Your task to perform on an android device: change timer sound Image 0: 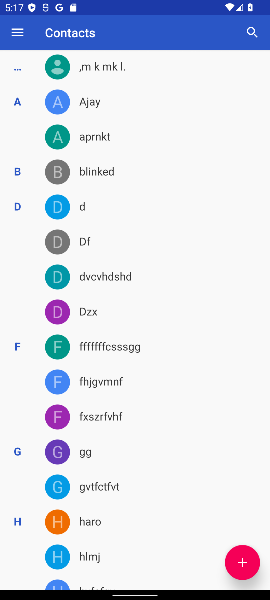
Step 0: press home button
Your task to perform on an android device: change timer sound Image 1: 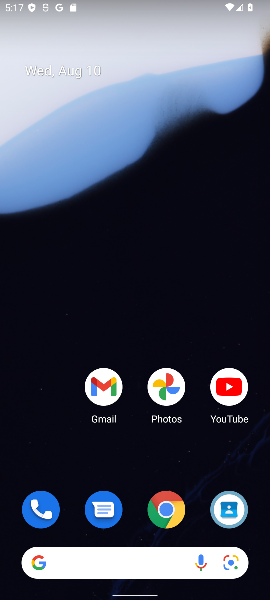
Step 1: drag from (145, 462) to (181, 69)
Your task to perform on an android device: change timer sound Image 2: 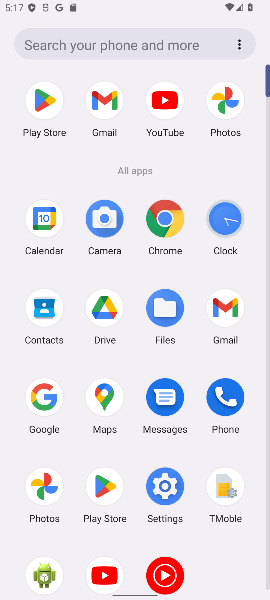
Step 2: click (160, 489)
Your task to perform on an android device: change timer sound Image 3: 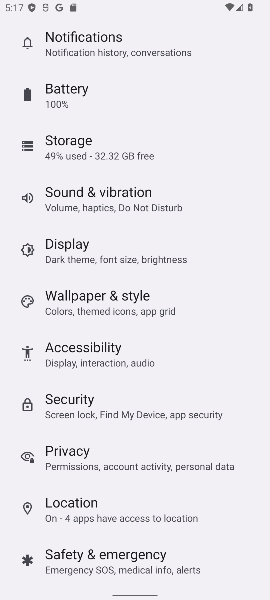
Step 3: press home button
Your task to perform on an android device: change timer sound Image 4: 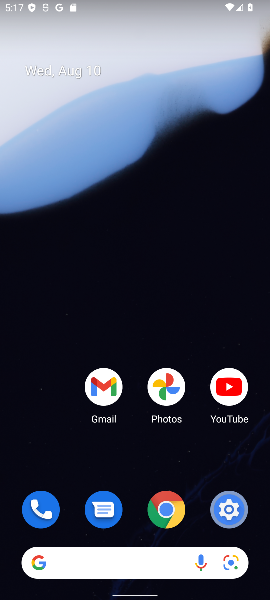
Step 4: drag from (126, 451) to (180, 44)
Your task to perform on an android device: change timer sound Image 5: 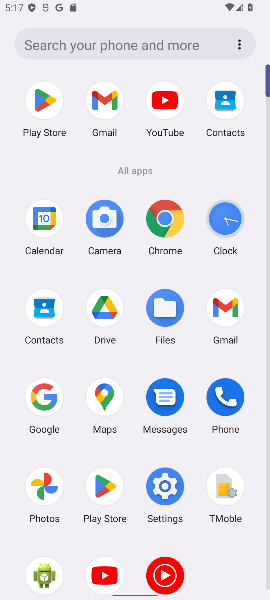
Step 5: click (225, 214)
Your task to perform on an android device: change timer sound Image 6: 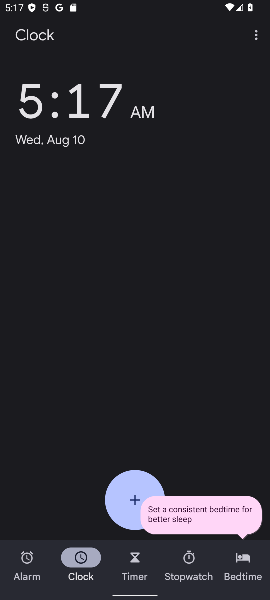
Step 6: click (254, 31)
Your task to perform on an android device: change timer sound Image 7: 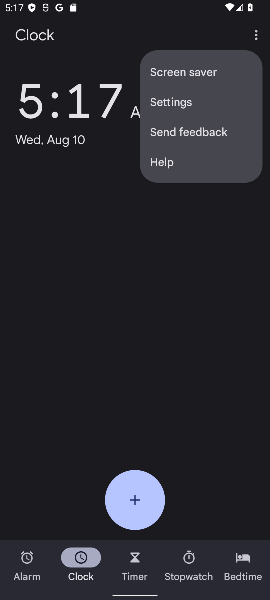
Step 7: click (184, 101)
Your task to perform on an android device: change timer sound Image 8: 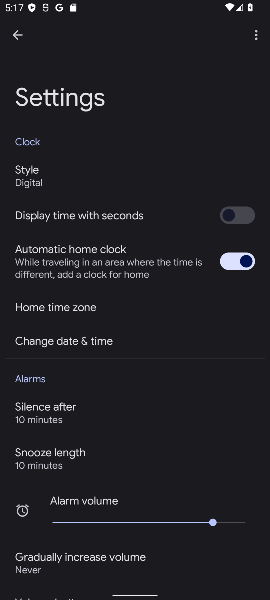
Step 8: drag from (105, 521) to (142, 312)
Your task to perform on an android device: change timer sound Image 9: 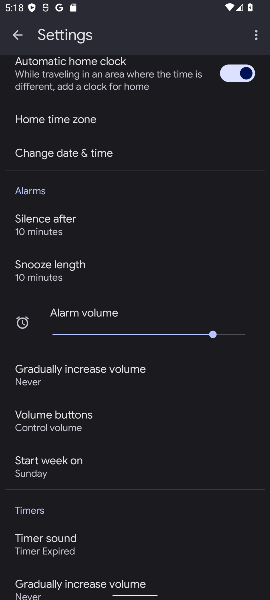
Step 9: click (49, 552)
Your task to perform on an android device: change timer sound Image 10: 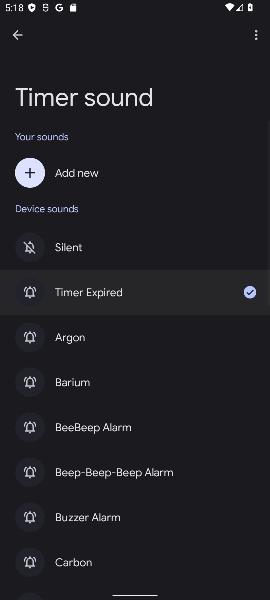
Step 10: click (102, 340)
Your task to perform on an android device: change timer sound Image 11: 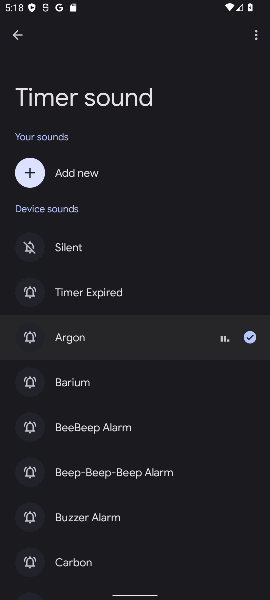
Step 11: task complete